Your task to perform on an android device: open the mobile data screen to see how much data has been used Image 0: 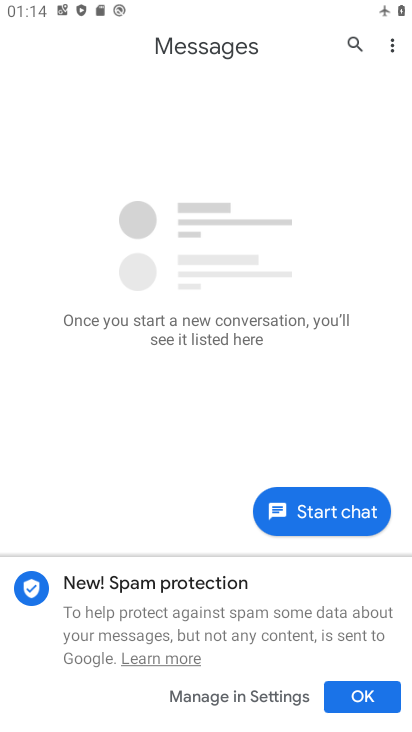
Step 0: press home button
Your task to perform on an android device: open the mobile data screen to see how much data has been used Image 1: 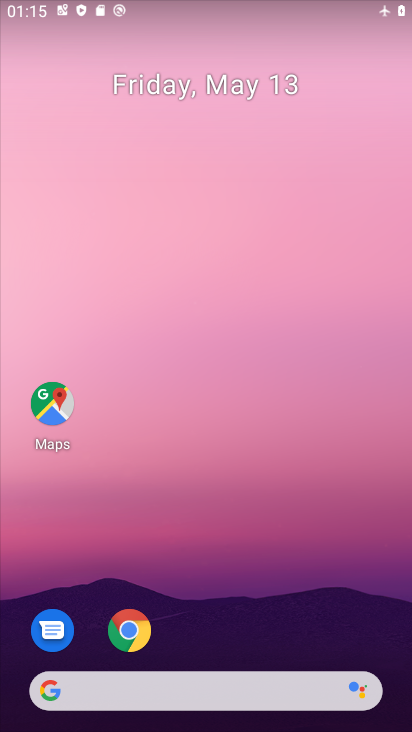
Step 1: drag from (221, 714) to (304, 273)
Your task to perform on an android device: open the mobile data screen to see how much data has been used Image 2: 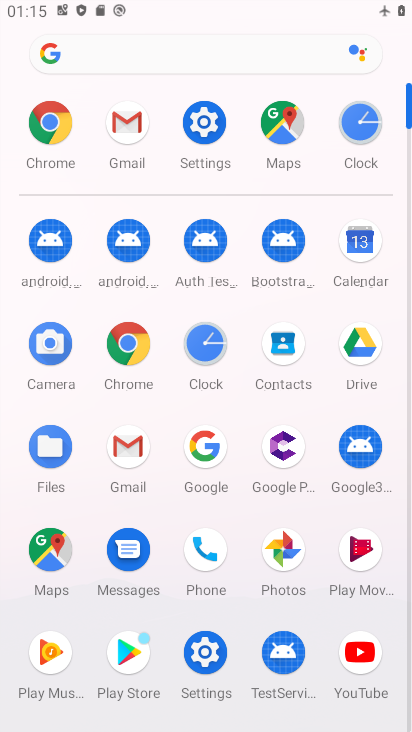
Step 2: click (191, 116)
Your task to perform on an android device: open the mobile data screen to see how much data has been used Image 3: 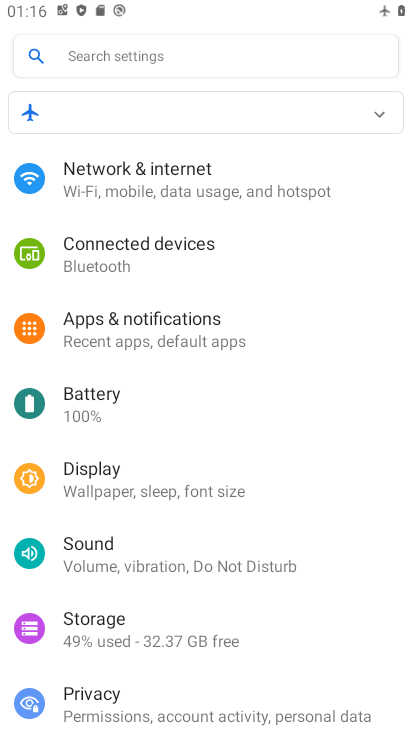
Step 3: click (146, 64)
Your task to perform on an android device: open the mobile data screen to see how much data has been used Image 4: 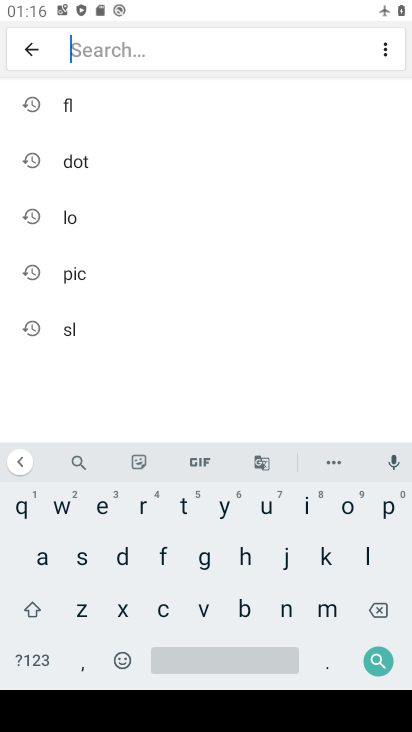
Step 4: click (124, 563)
Your task to perform on an android device: open the mobile data screen to see how much data has been used Image 5: 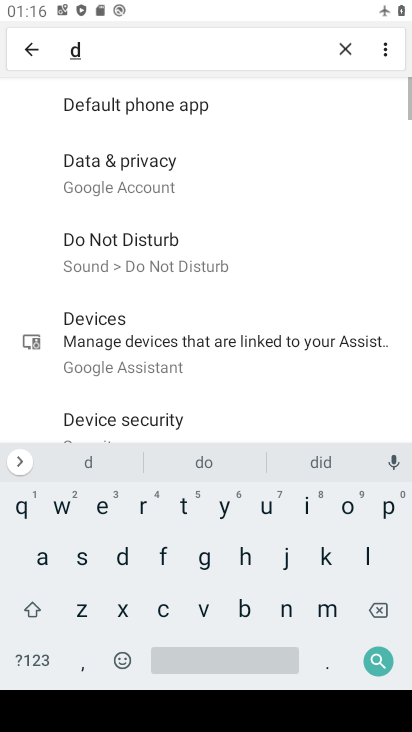
Step 5: click (44, 559)
Your task to perform on an android device: open the mobile data screen to see how much data has been used Image 6: 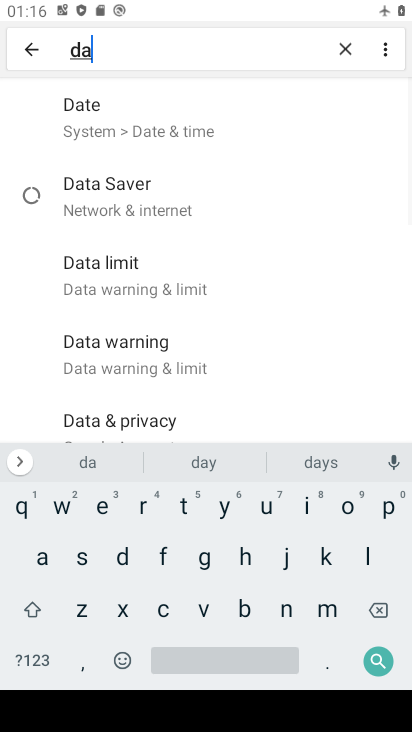
Step 6: click (186, 506)
Your task to perform on an android device: open the mobile data screen to see how much data has been used Image 7: 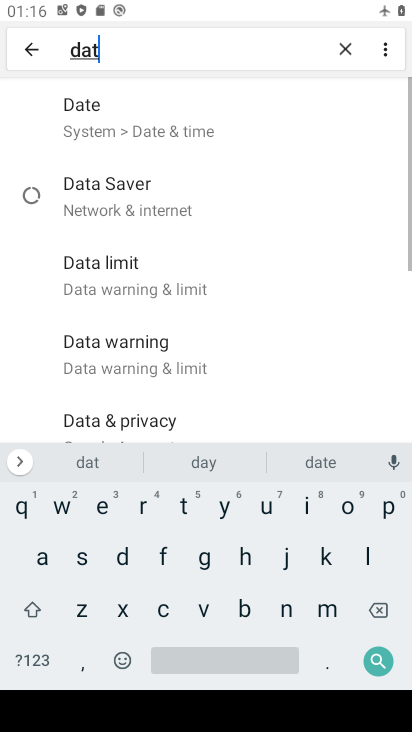
Step 7: click (38, 558)
Your task to perform on an android device: open the mobile data screen to see how much data has been used Image 8: 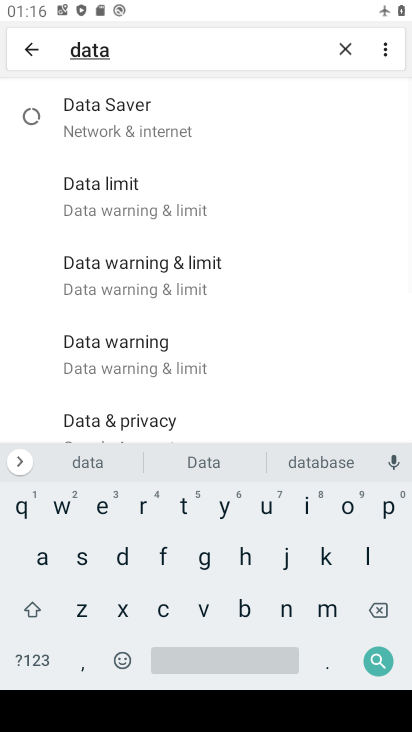
Step 8: click (202, 653)
Your task to perform on an android device: open the mobile data screen to see how much data has been used Image 9: 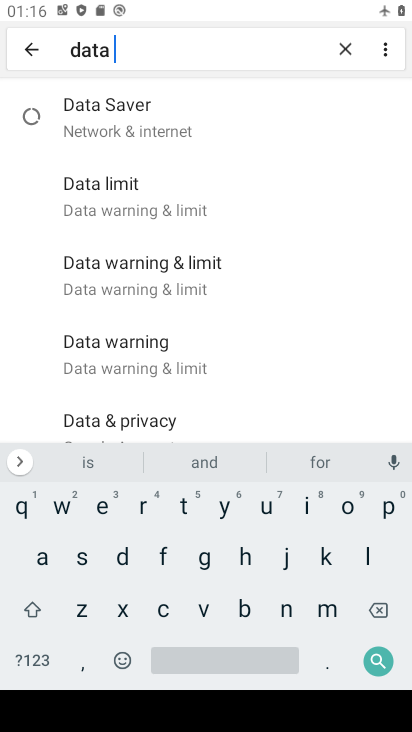
Step 9: click (268, 504)
Your task to perform on an android device: open the mobile data screen to see how much data has been used Image 10: 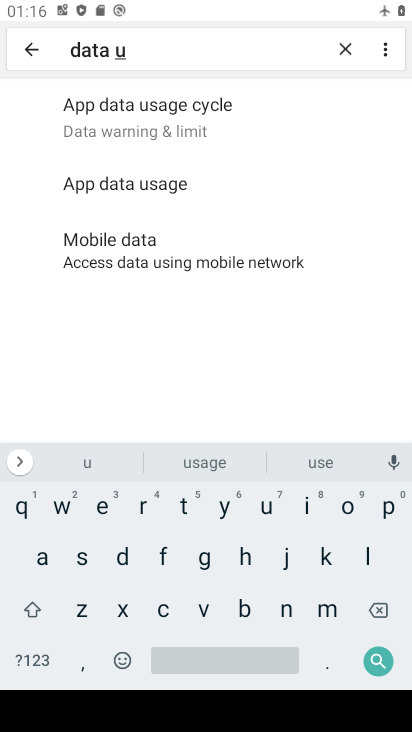
Step 10: click (140, 184)
Your task to perform on an android device: open the mobile data screen to see how much data has been used Image 11: 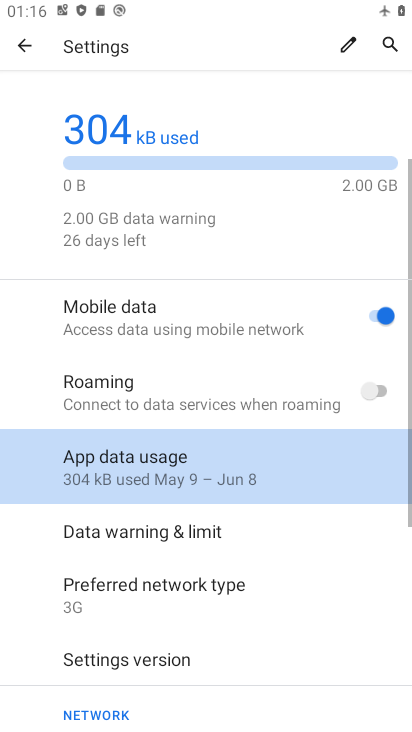
Step 11: click (166, 453)
Your task to perform on an android device: open the mobile data screen to see how much data has been used Image 12: 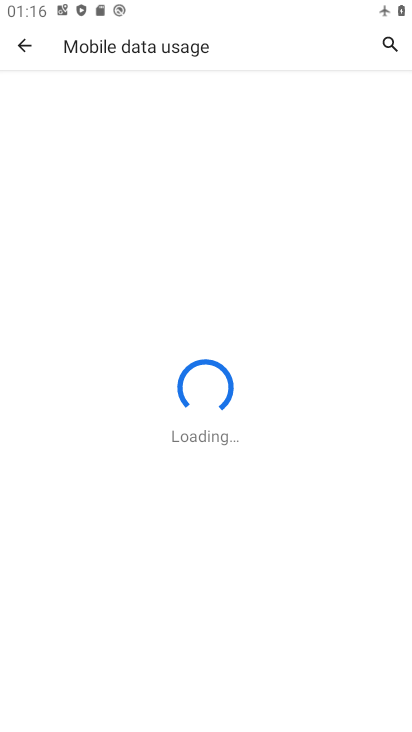
Step 12: task complete